Your task to perform on an android device: Go to eBay Image 0: 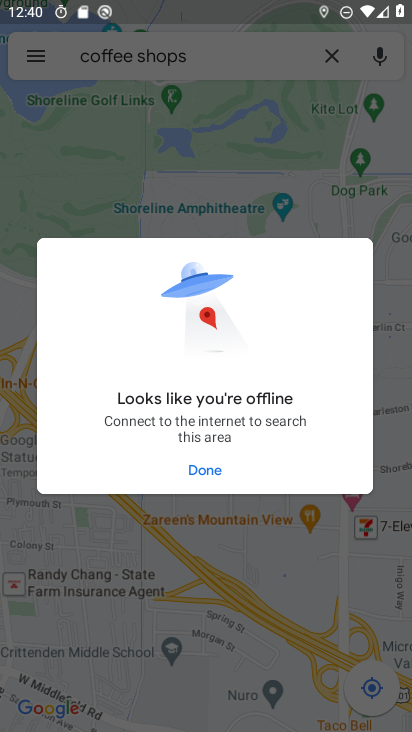
Step 0: press home button
Your task to perform on an android device: Go to eBay Image 1: 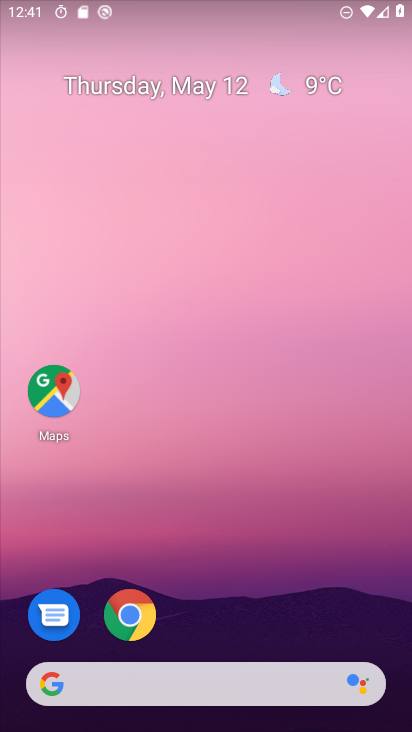
Step 1: click (131, 613)
Your task to perform on an android device: Go to eBay Image 2: 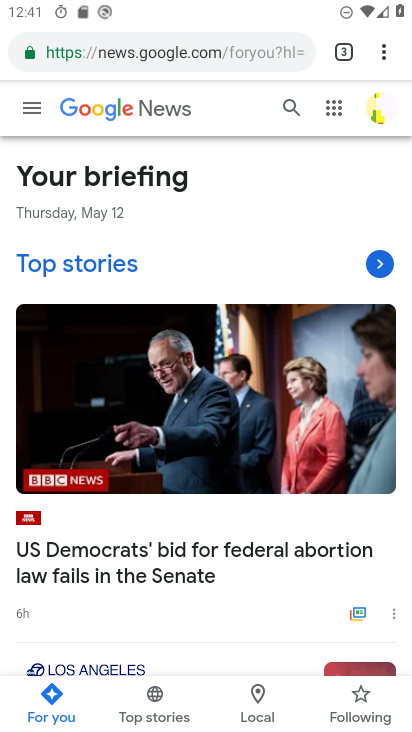
Step 2: click (195, 47)
Your task to perform on an android device: Go to eBay Image 3: 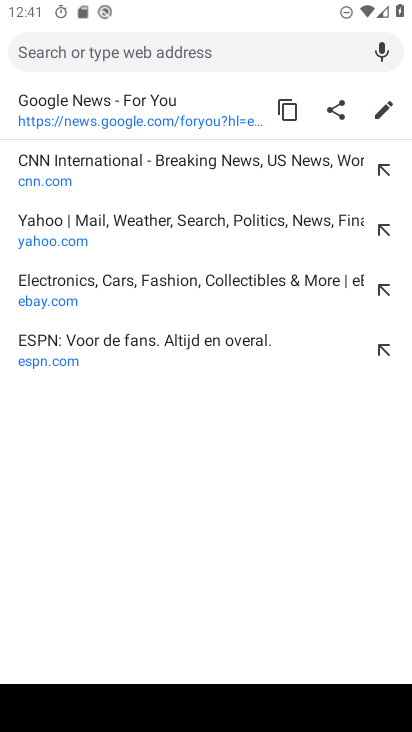
Step 3: type "ebay"
Your task to perform on an android device: Go to eBay Image 4: 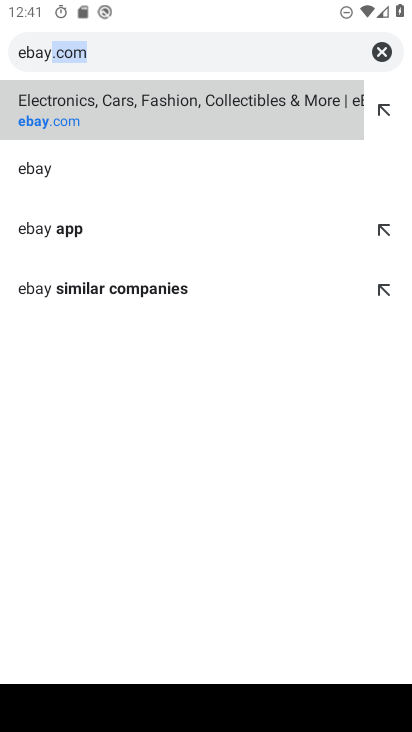
Step 4: click (39, 120)
Your task to perform on an android device: Go to eBay Image 5: 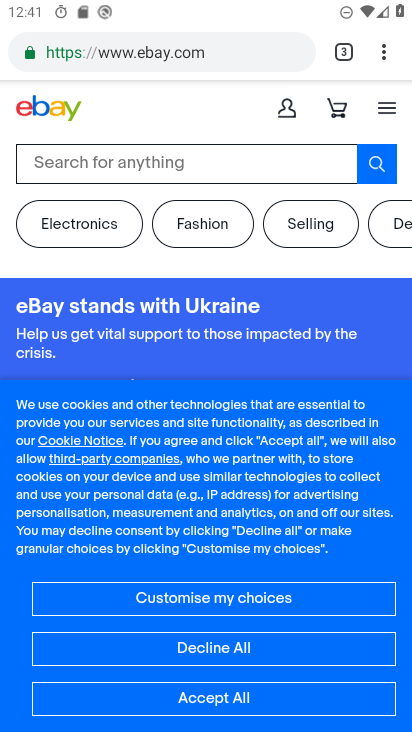
Step 5: task complete